Your task to perform on an android device: turn on showing notifications on the lock screen Image 0: 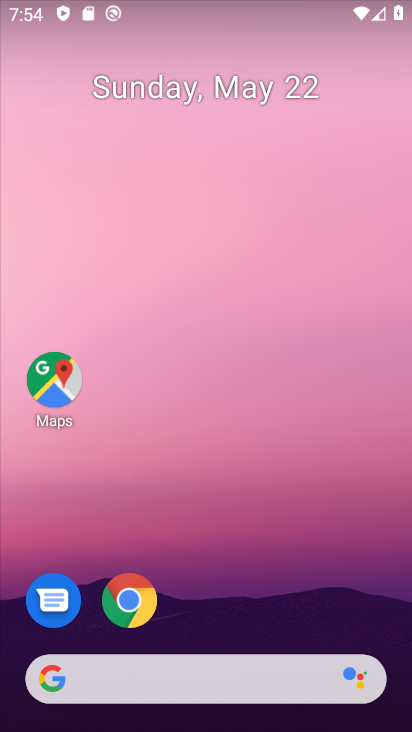
Step 0: click (245, 223)
Your task to perform on an android device: turn on showing notifications on the lock screen Image 1: 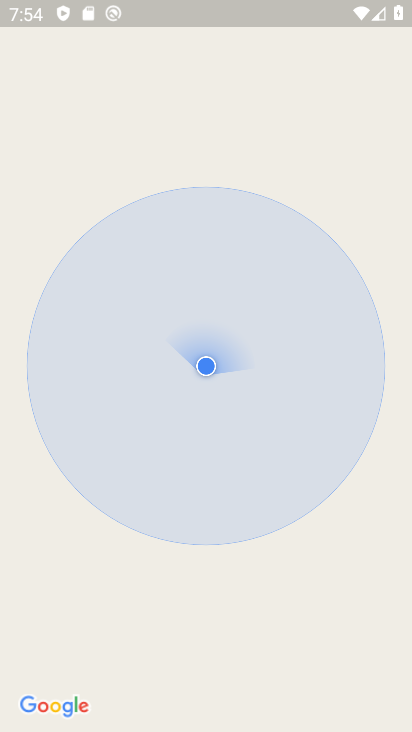
Step 1: press home button
Your task to perform on an android device: turn on showing notifications on the lock screen Image 2: 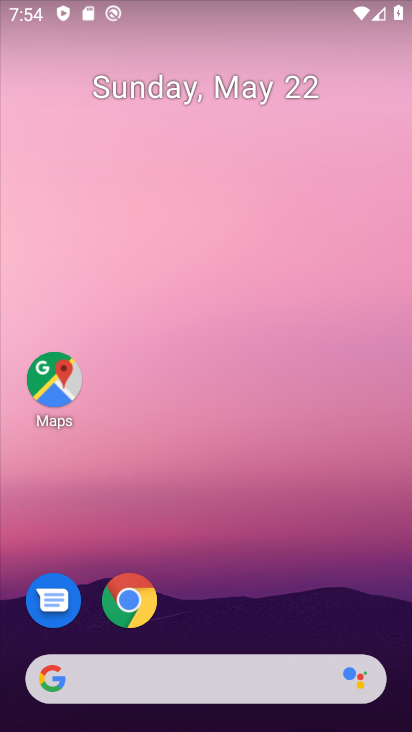
Step 2: drag from (247, 642) to (257, 351)
Your task to perform on an android device: turn on showing notifications on the lock screen Image 3: 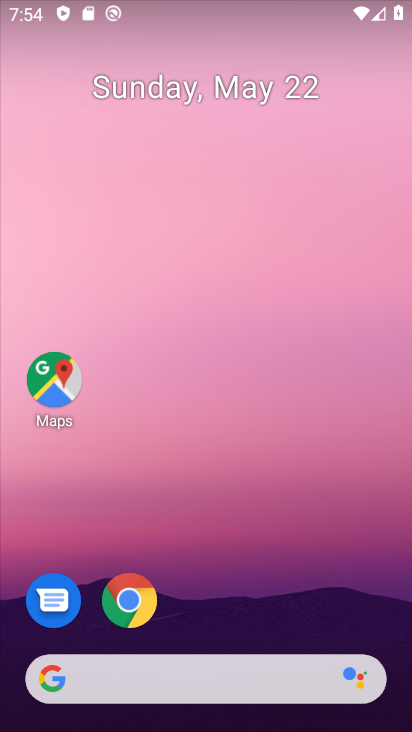
Step 3: drag from (272, 667) to (297, 239)
Your task to perform on an android device: turn on showing notifications on the lock screen Image 4: 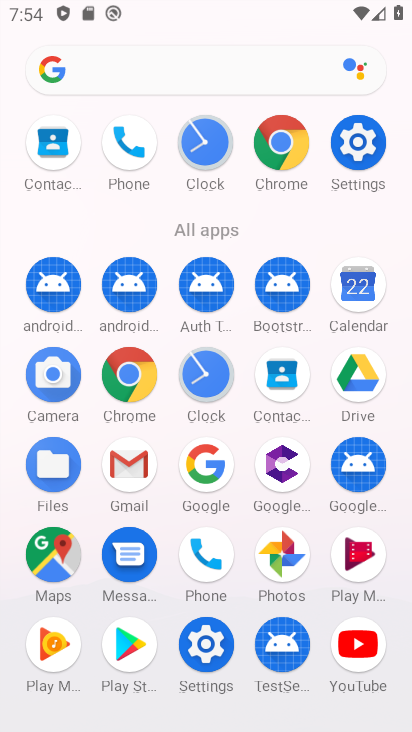
Step 4: click (356, 145)
Your task to perform on an android device: turn on showing notifications on the lock screen Image 5: 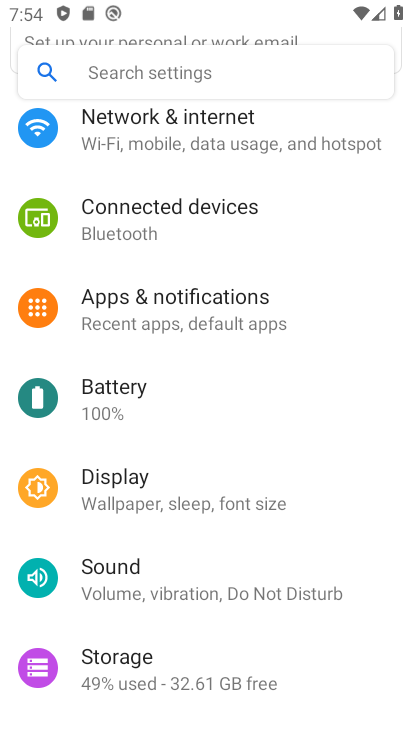
Step 5: drag from (112, 667) to (177, 229)
Your task to perform on an android device: turn on showing notifications on the lock screen Image 6: 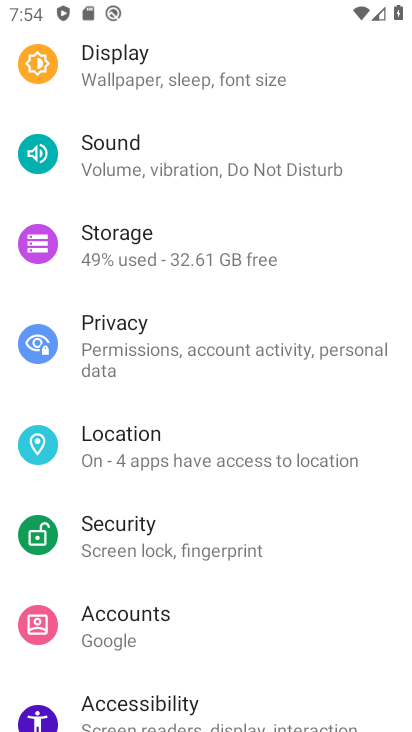
Step 6: click (136, 329)
Your task to perform on an android device: turn on showing notifications on the lock screen Image 7: 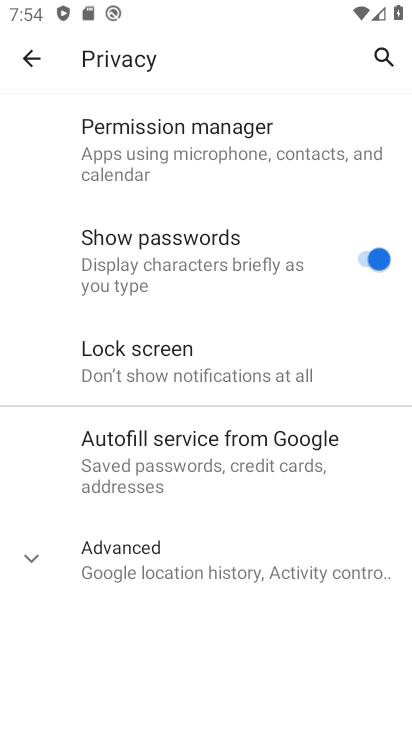
Step 7: click (141, 359)
Your task to perform on an android device: turn on showing notifications on the lock screen Image 8: 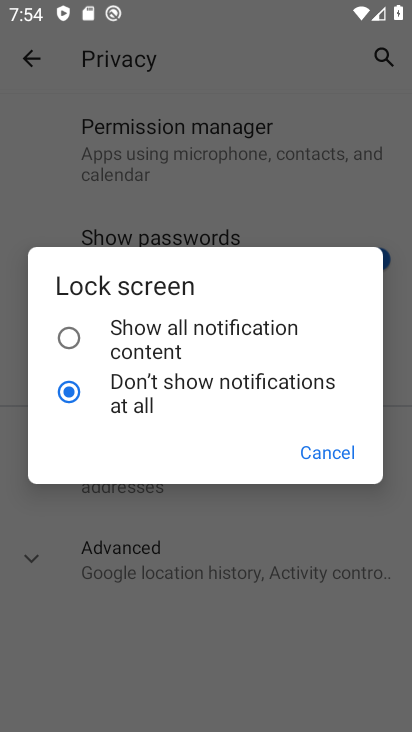
Step 8: click (116, 324)
Your task to perform on an android device: turn on showing notifications on the lock screen Image 9: 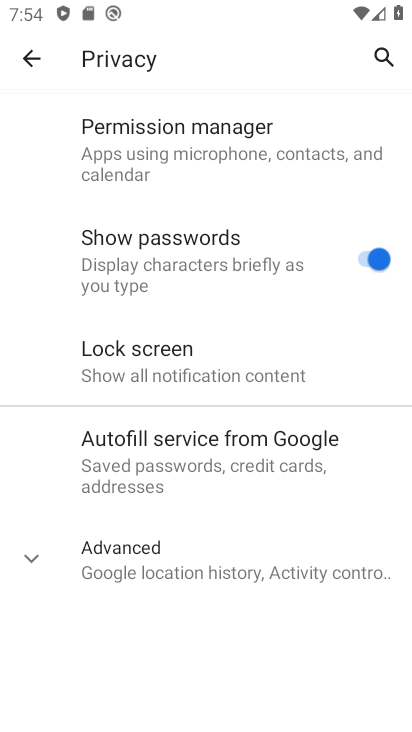
Step 9: task complete